Your task to perform on an android device: change text size in settings app Image 0: 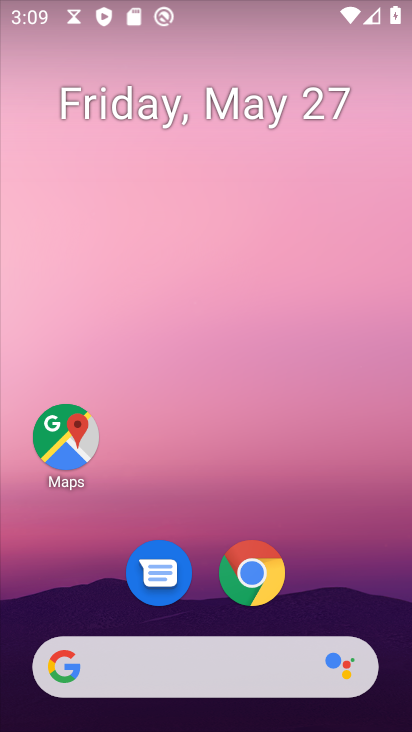
Step 0: drag from (322, 612) to (394, 12)
Your task to perform on an android device: change text size in settings app Image 1: 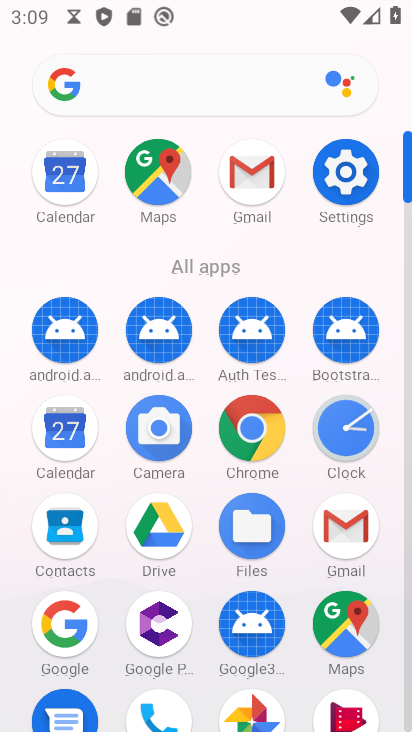
Step 1: click (348, 172)
Your task to perform on an android device: change text size in settings app Image 2: 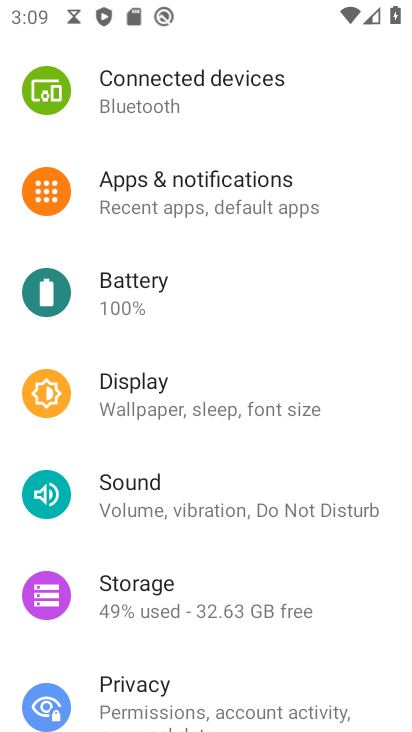
Step 2: click (243, 408)
Your task to perform on an android device: change text size in settings app Image 3: 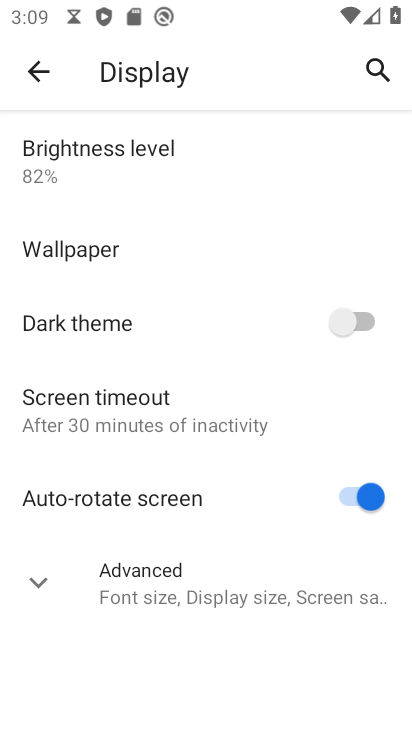
Step 3: click (136, 594)
Your task to perform on an android device: change text size in settings app Image 4: 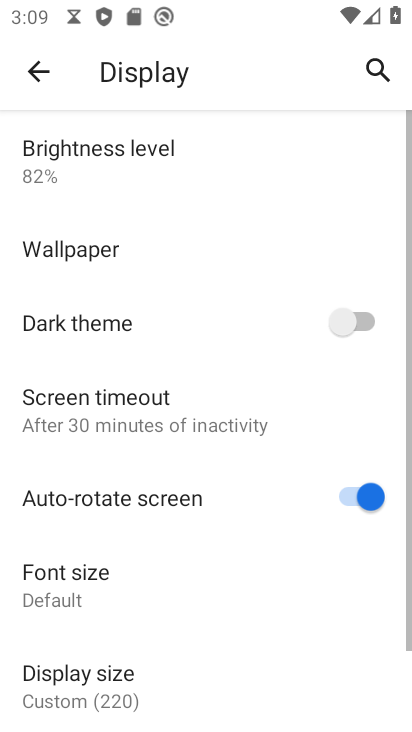
Step 4: click (138, 588)
Your task to perform on an android device: change text size in settings app Image 5: 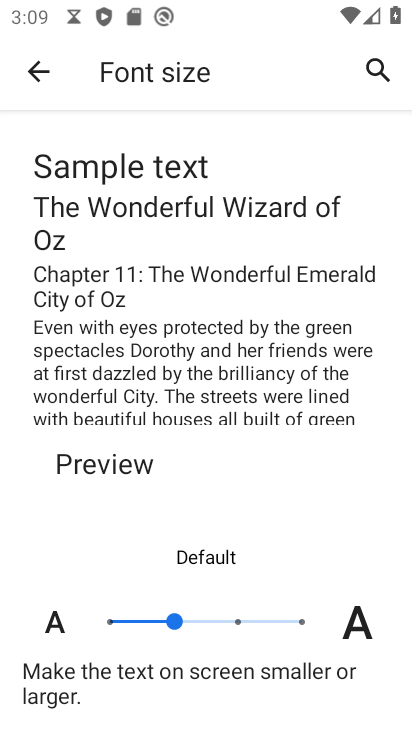
Step 5: click (228, 617)
Your task to perform on an android device: change text size in settings app Image 6: 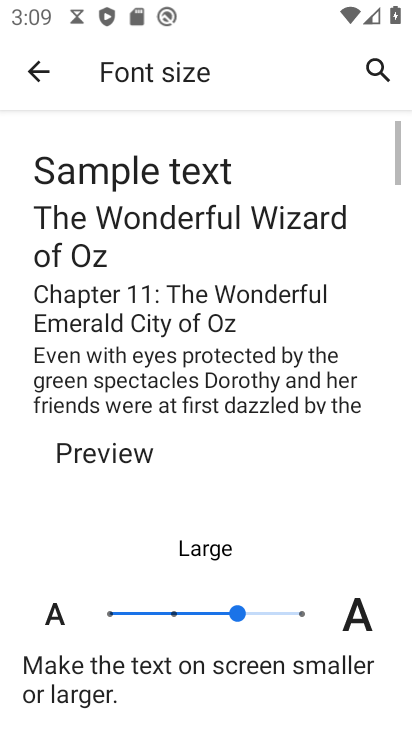
Step 6: task complete